Your task to perform on an android device: Show me popular games on the Play Store Image 0: 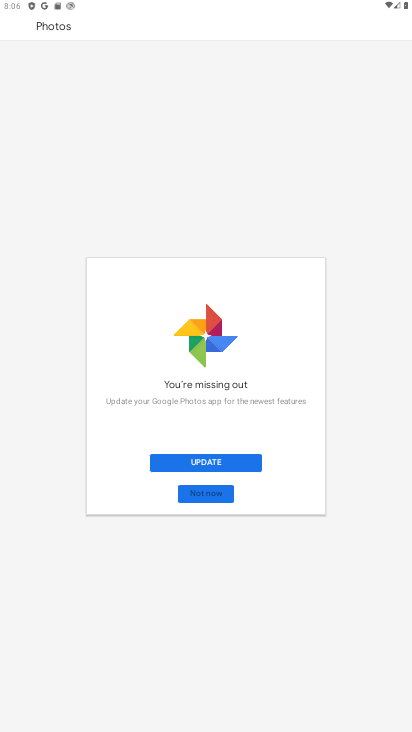
Step 0: press home button
Your task to perform on an android device: Show me popular games on the Play Store Image 1: 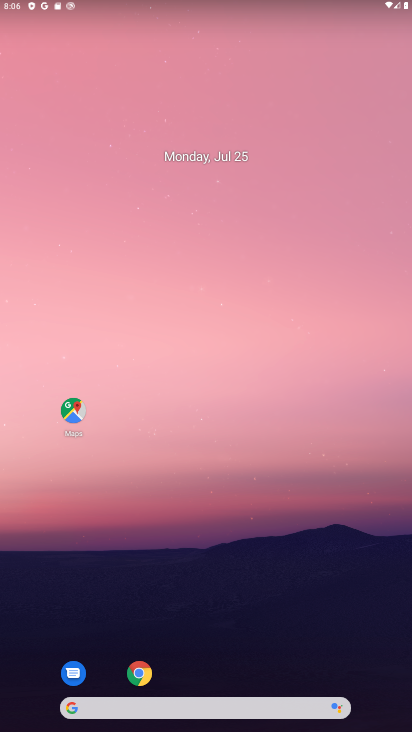
Step 1: drag from (240, 689) to (251, 451)
Your task to perform on an android device: Show me popular games on the Play Store Image 2: 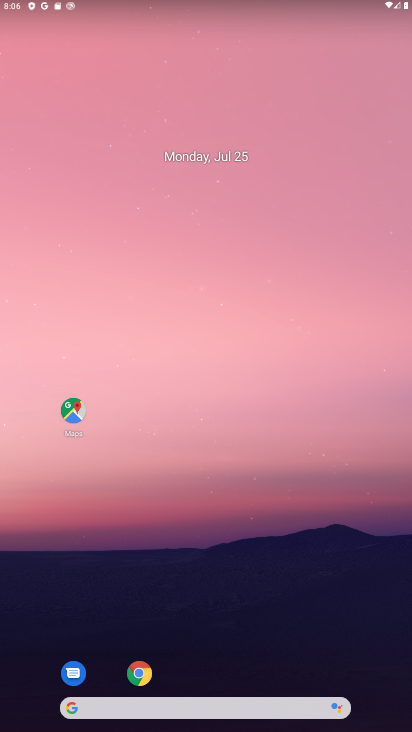
Step 2: drag from (235, 681) to (274, 8)
Your task to perform on an android device: Show me popular games on the Play Store Image 3: 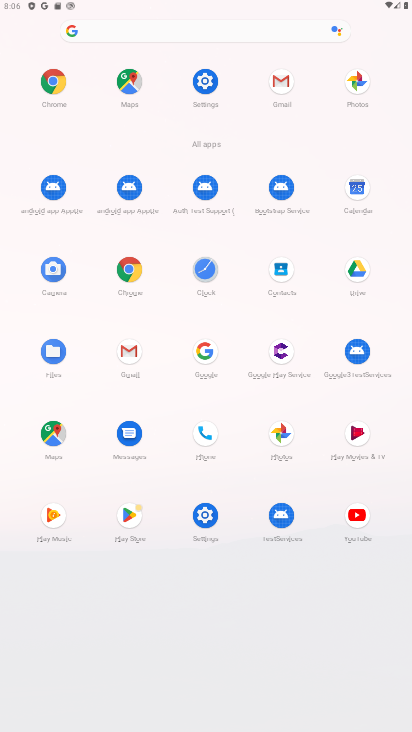
Step 3: click (284, 97)
Your task to perform on an android device: Show me popular games on the Play Store Image 4: 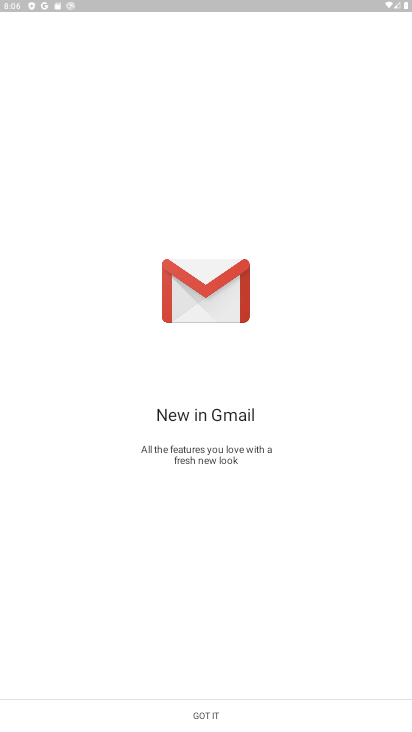
Step 4: click (177, 716)
Your task to perform on an android device: Show me popular games on the Play Store Image 5: 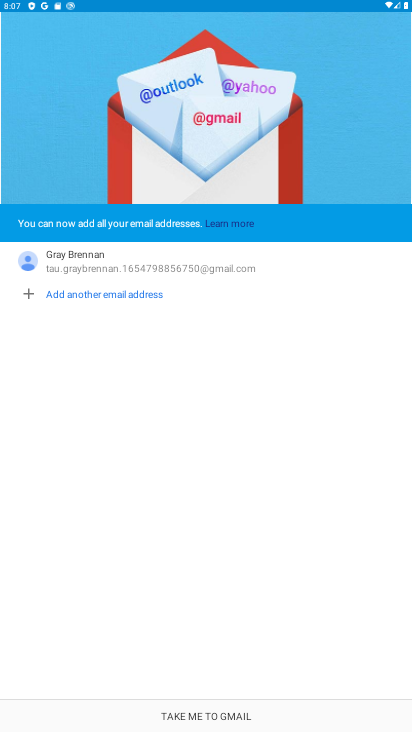
Step 5: click (177, 716)
Your task to perform on an android device: Show me popular games on the Play Store Image 6: 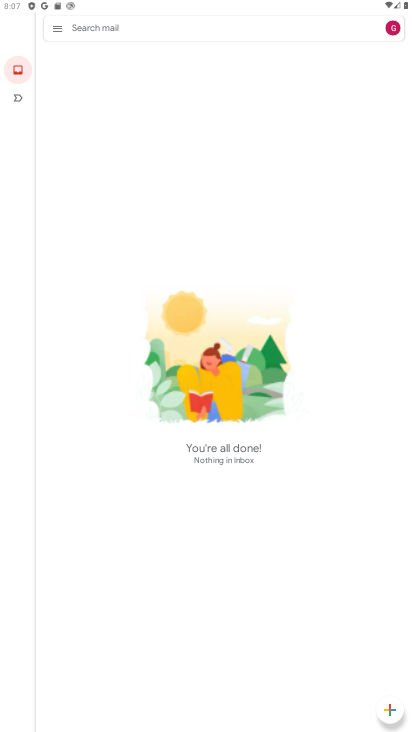
Step 6: task complete